Your task to perform on an android device: Open sound settings Image 0: 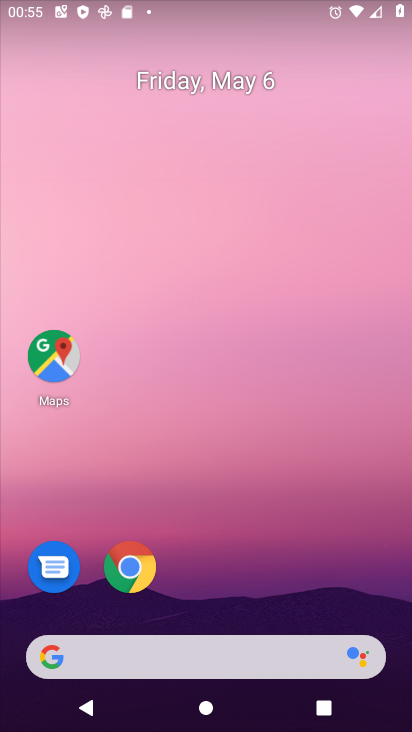
Step 0: drag from (221, 590) to (224, 73)
Your task to perform on an android device: Open sound settings Image 1: 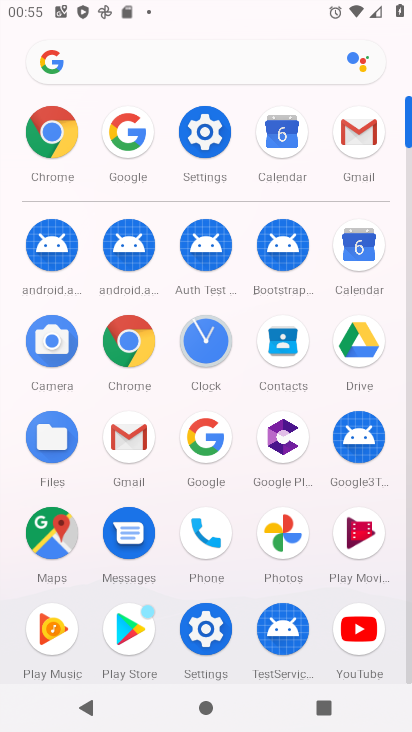
Step 1: click (208, 123)
Your task to perform on an android device: Open sound settings Image 2: 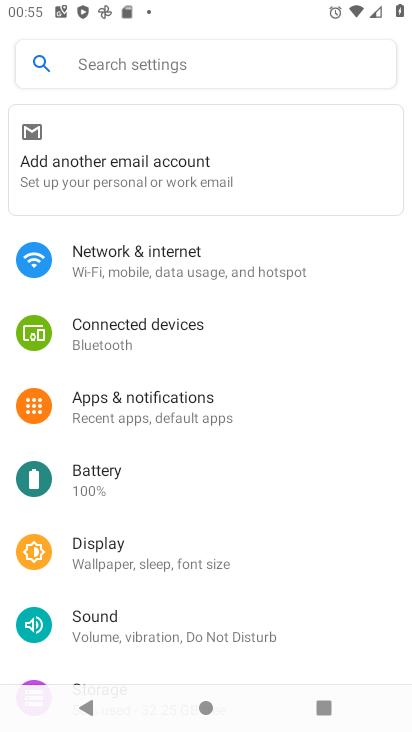
Step 2: drag from (165, 606) to (170, 388)
Your task to perform on an android device: Open sound settings Image 3: 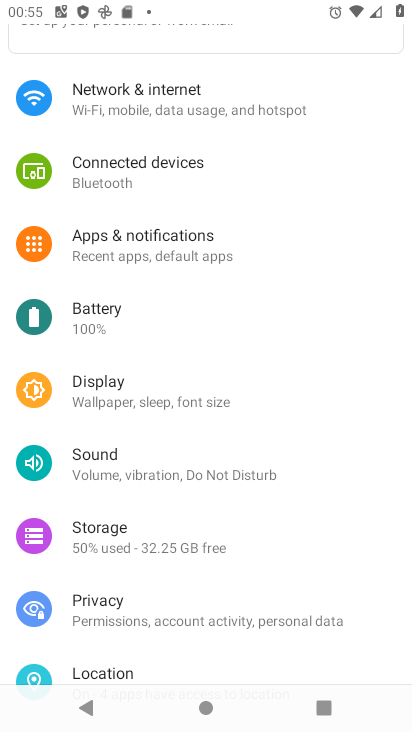
Step 3: click (132, 463)
Your task to perform on an android device: Open sound settings Image 4: 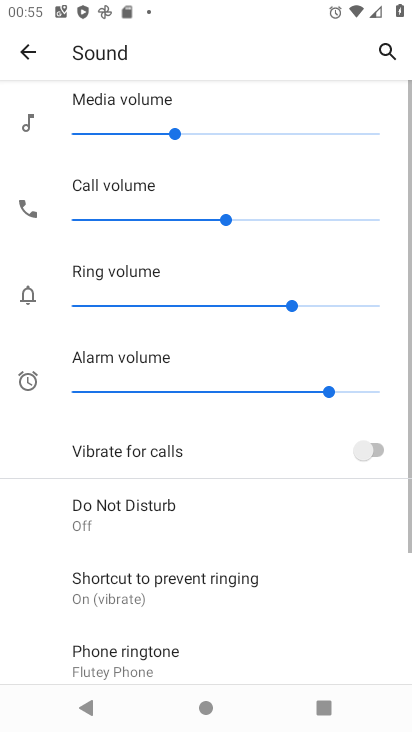
Step 4: drag from (239, 594) to (223, 221)
Your task to perform on an android device: Open sound settings Image 5: 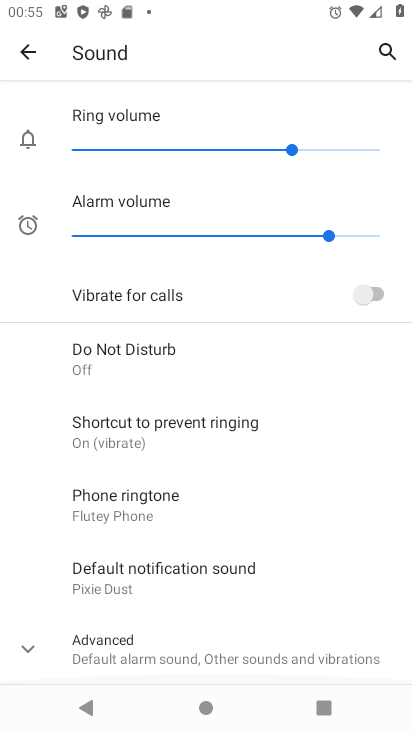
Step 5: drag from (227, 634) to (221, 269)
Your task to perform on an android device: Open sound settings Image 6: 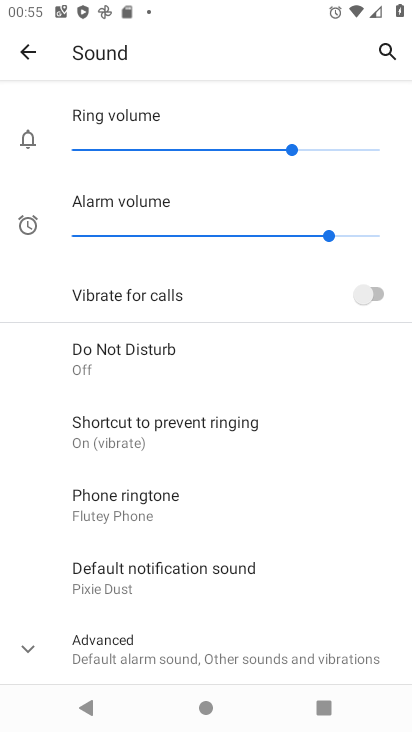
Step 6: click (88, 658)
Your task to perform on an android device: Open sound settings Image 7: 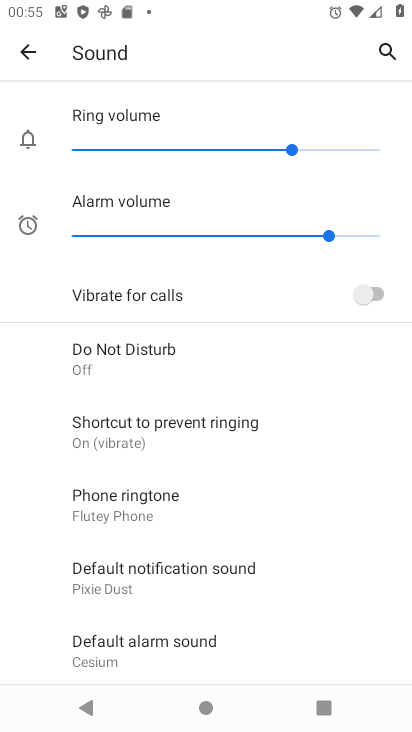
Step 7: task complete